Your task to perform on an android device: Go to display settings Image 0: 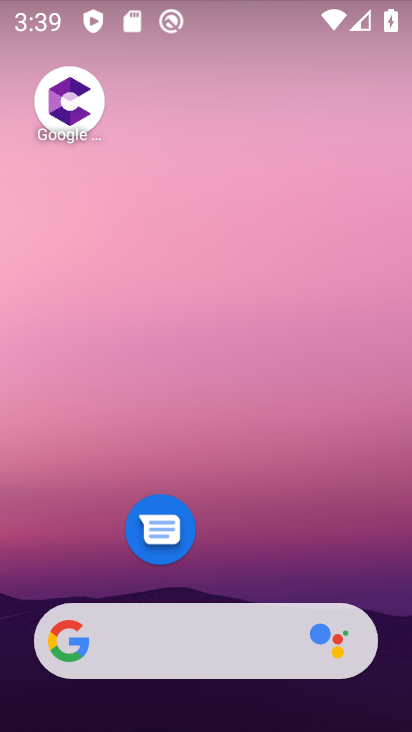
Step 0: drag from (201, 573) to (139, 130)
Your task to perform on an android device: Go to display settings Image 1: 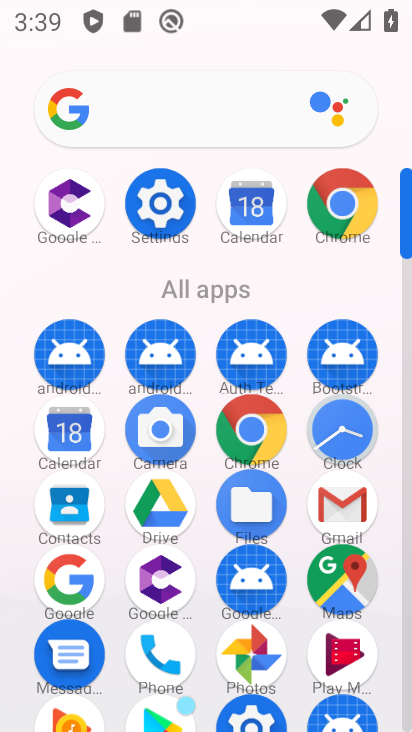
Step 1: click (160, 198)
Your task to perform on an android device: Go to display settings Image 2: 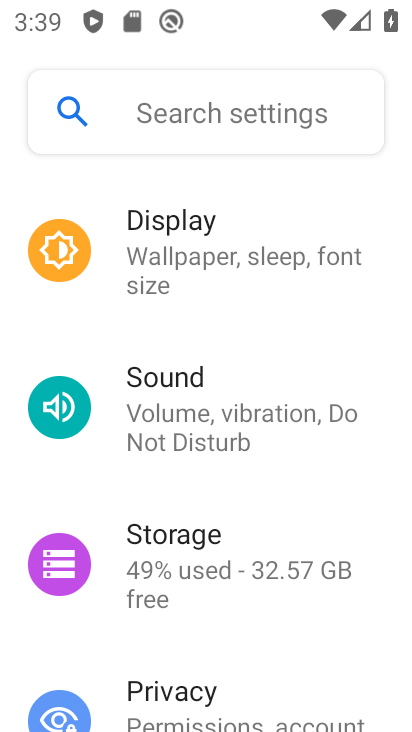
Step 2: click (199, 267)
Your task to perform on an android device: Go to display settings Image 3: 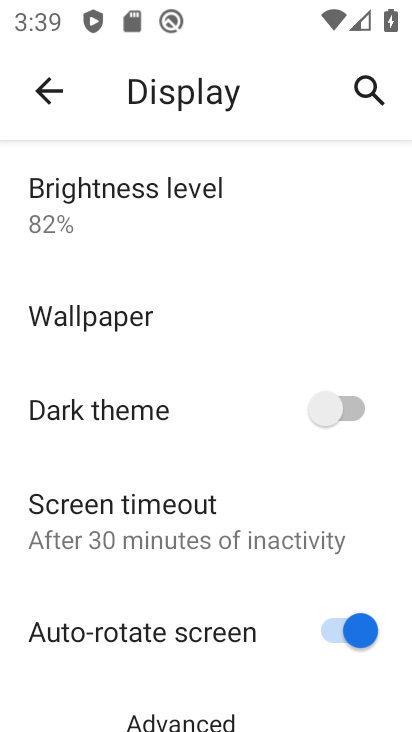
Step 3: task complete